Your task to perform on an android device: toggle translation in the chrome app Image 0: 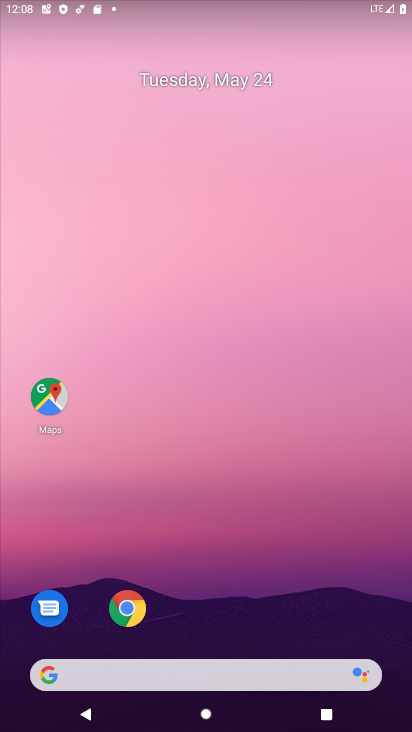
Step 0: drag from (219, 626) to (220, 224)
Your task to perform on an android device: toggle translation in the chrome app Image 1: 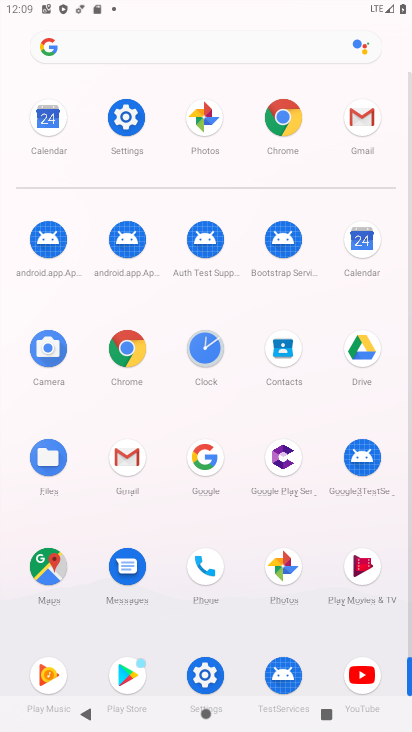
Step 1: click (127, 341)
Your task to perform on an android device: toggle translation in the chrome app Image 2: 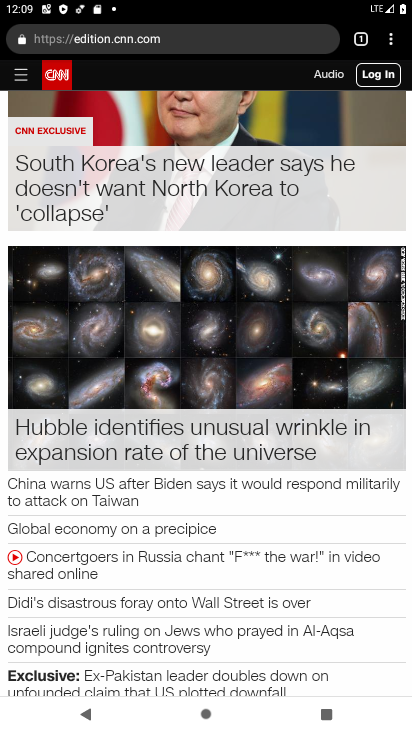
Step 2: click (391, 37)
Your task to perform on an android device: toggle translation in the chrome app Image 3: 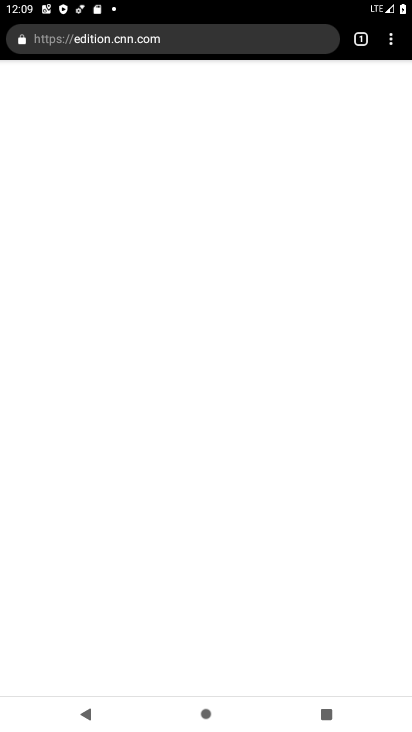
Step 3: click (390, 36)
Your task to perform on an android device: toggle translation in the chrome app Image 4: 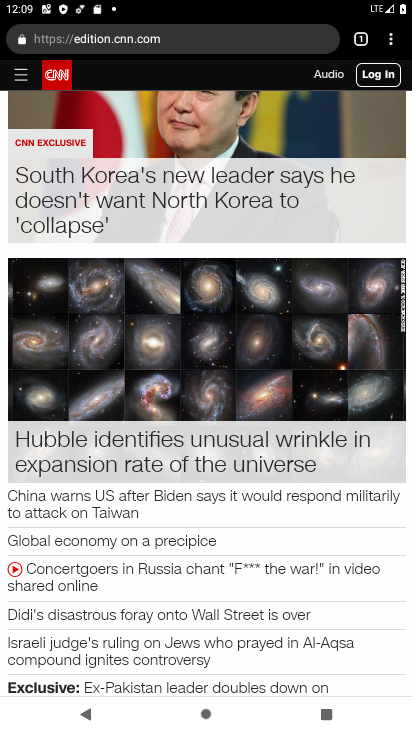
Step 4: click (394, 38)
Your task to perform on an android device: toggle translation in the chrome app Image 5: 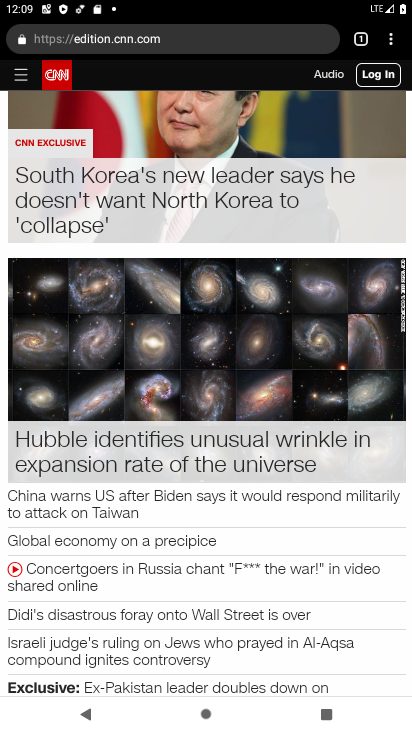
Step 5: click (387, 36)
Your task to perform on an android device: toggle translation in the chrome app Image 6: 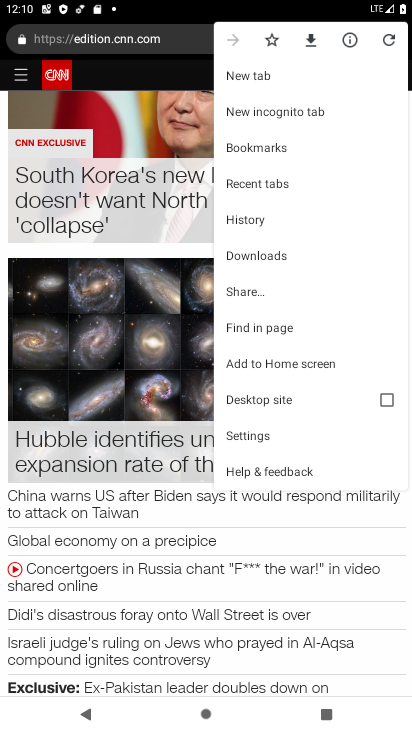
Step 6: click (282, 432)
Your task to perform on an android device: toggle translation in the chrome app Image 7: 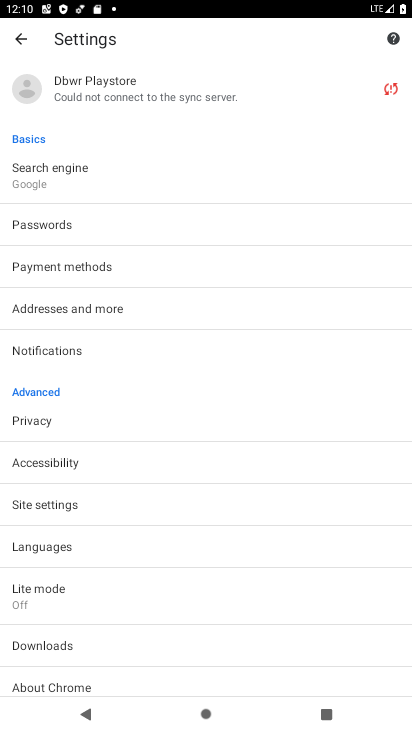
Step 7: click (80, 544)
Your task to perform on an android device: toggle translation in the chrome app Image 8: 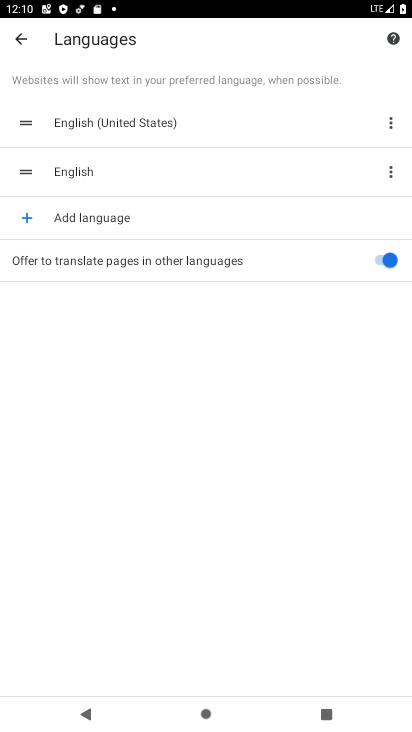
Step 8: click (384, 253)
Your task to perform on an android device: toggle translation in the chrome app Image 9: 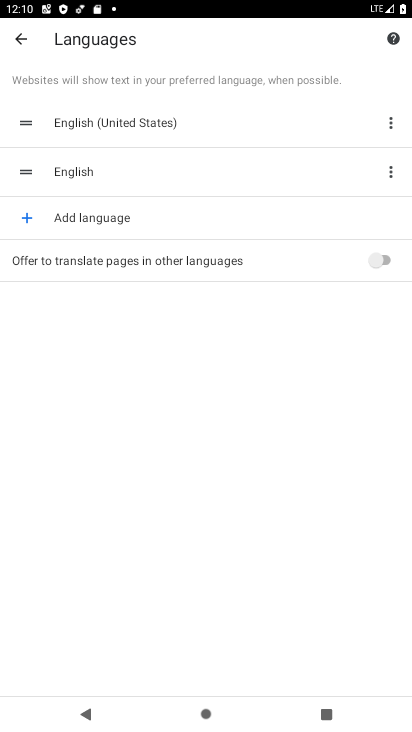
Step 9: task complete